Your task to perform on an android device: see sites visited before in the chrome app Image 0: 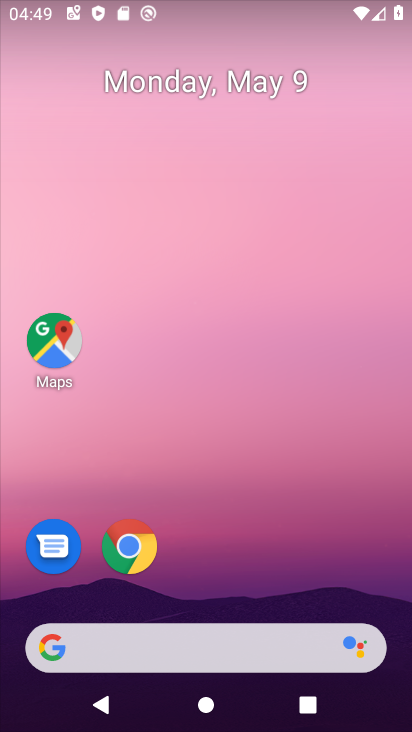
Step 0: click (131, 544)
Your task to perform on an android device: see sites visited before in the chrome app Image 1: 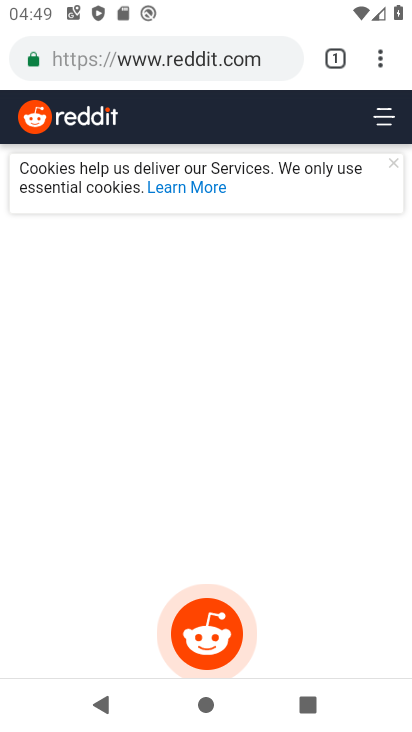
Step 1: click (392, 54)
Your task to perform on an android device: see sites visited before in the chrome app Image 2: 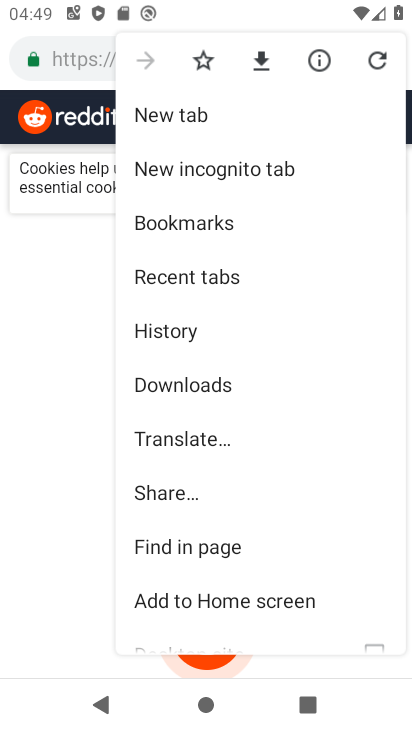
Step 2: click (190, 339)
Your task to perform on an android device: see sites visited before in the chrome app Image 3: 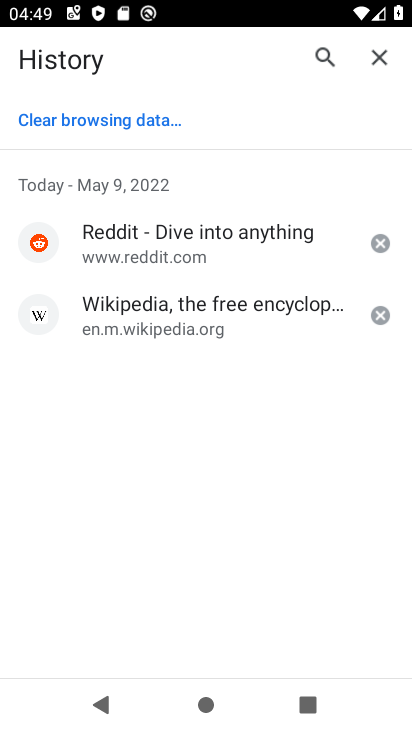
Step 3: task complete